Your task to perform on an android device: Open the web browser Image 0: 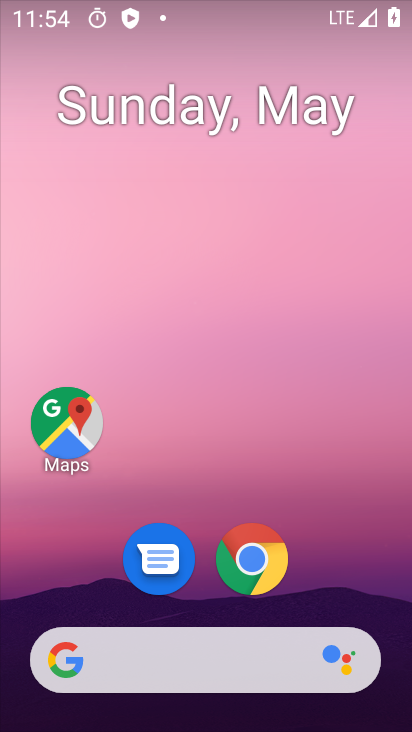
Step 0: drag from (277, 714) to (282, 93)
Your task to perform on an android device: Open the web browser Image 1: 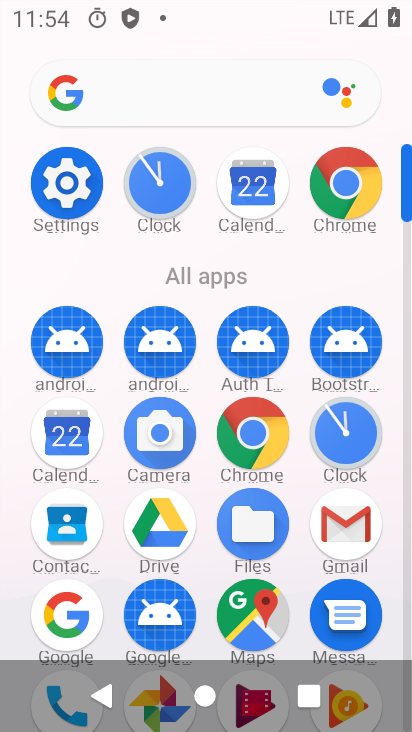
Step 1: click (266, 445)
Your task to perform on an android device: Open the web browser Image 2: 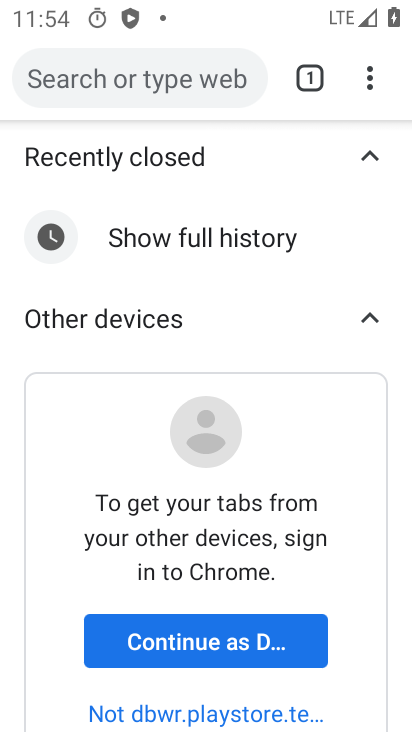
Step 2: click (210, 75)
Your task to perform on an android device: Open the web browser Image 3: 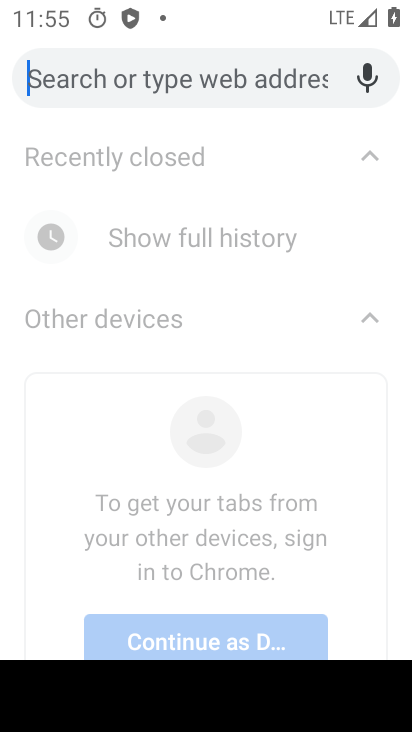
Step 3: task complete